Your task to perform on an android device: Toggle the flashlight Image 0: 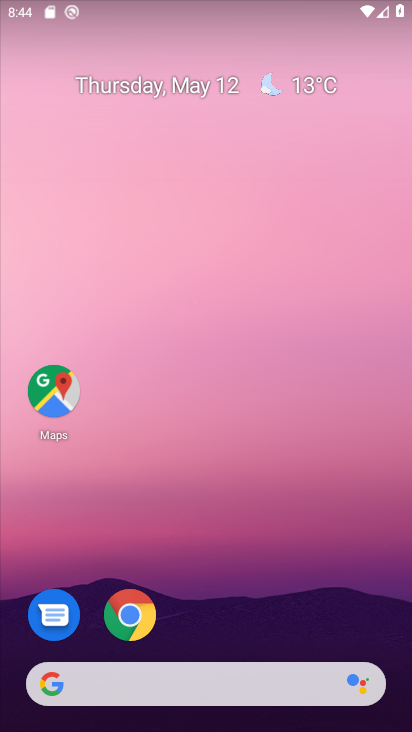
Step 0: drag from (191, 651) to (115, 32)
Your task to perform on an android device: Toggle the flashlight Image 1: 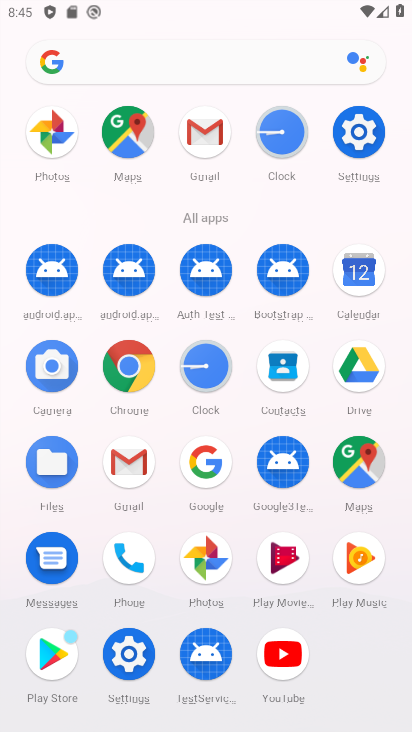
Step 1: click (127, 658)
Your task to perform on an android device: Toggle the flashlight Image 2: 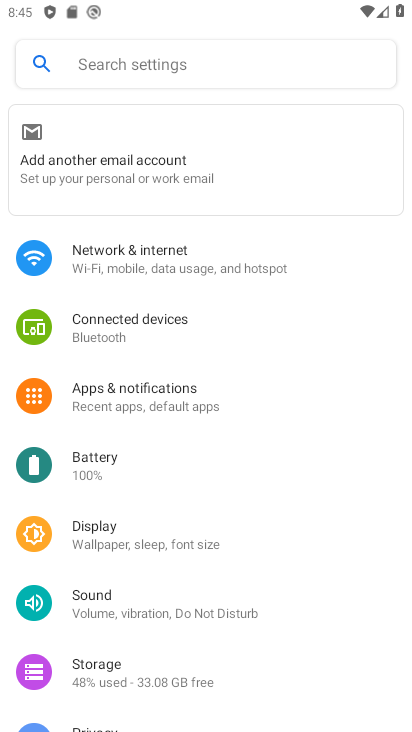
Step 2: task complete